Your task to perform on an android device: Go to Amazon Image 0: 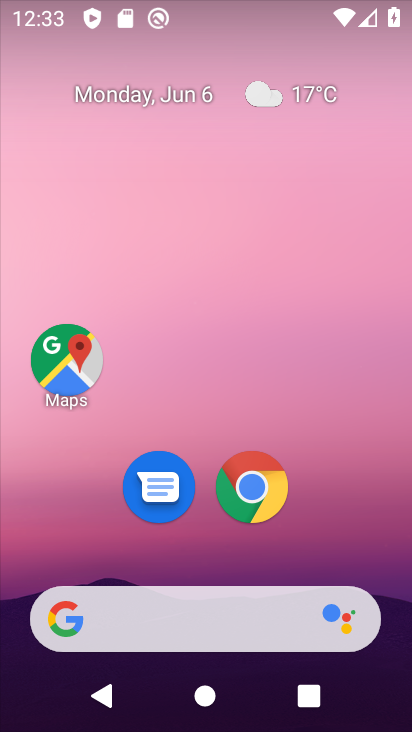
Step 0: click (252, 495)
Your task to perform on an android device: Go to Amazon Image 1: 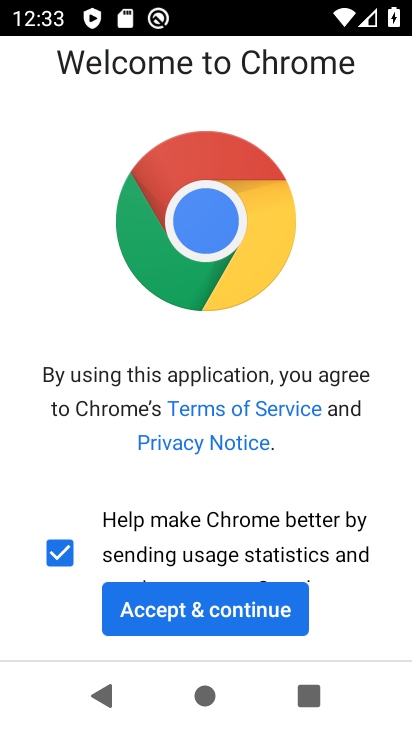
Step 1: click (216, 597)
Your task to perform on an android device: Go to Amazon Image 2: 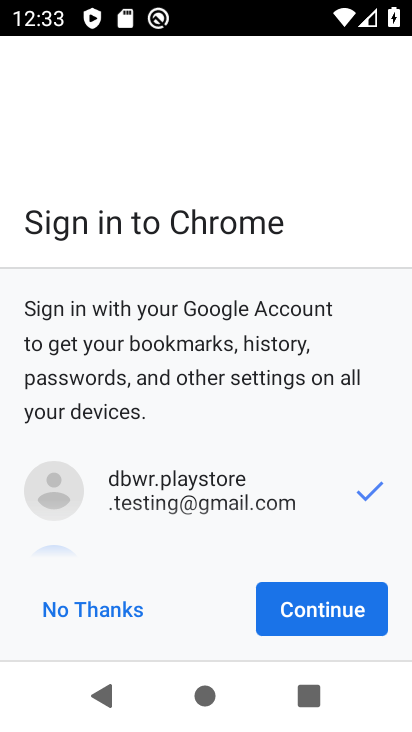
Step 2: click (327, 617)
Your task to perform on an android device: Go to Amazon Image 3: 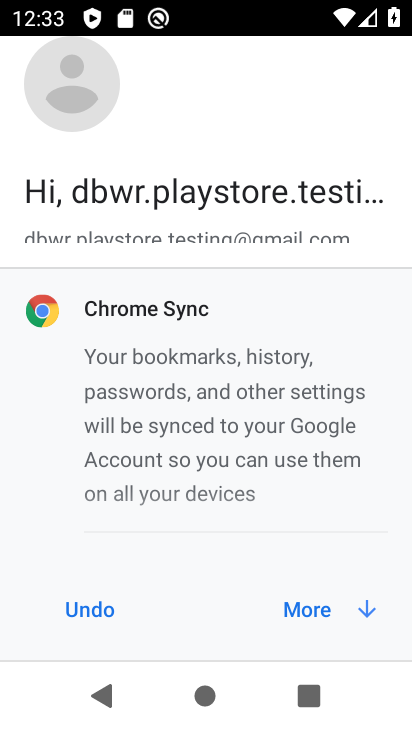
Step 3: click (333, 613)
Your task to perform on an android device: Go to Amazon Image 4: 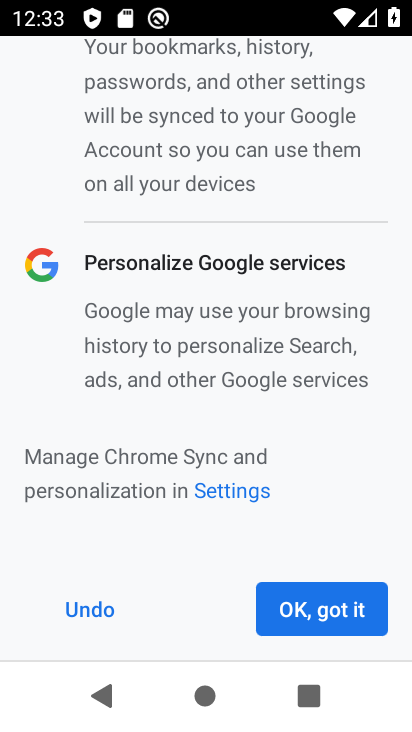
Step 4: click (345, 613)
Your task to perform on an android device: Go to Amazon Image 5: 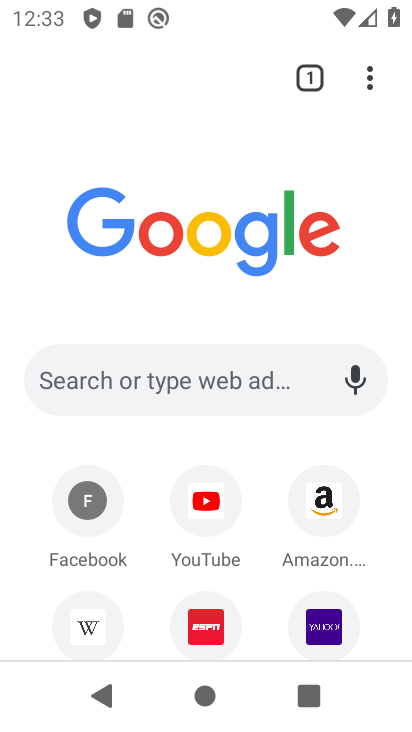
Step 5: click (312, 515)
Your task to perform on an android device: Go to Amazon Image 6: 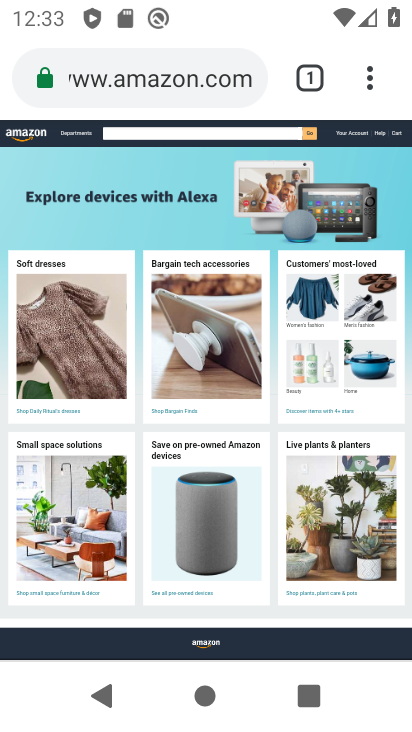
Step 6: task complete